Your task to perform on an android device: Do I have any events tomorrow? Image 0: 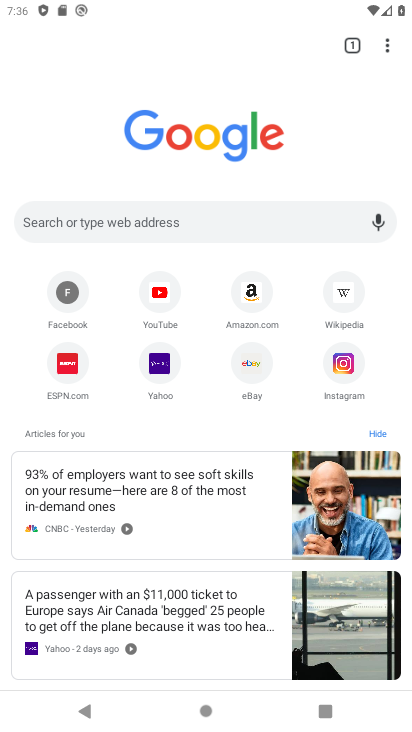
Step 0: drag from (32, 710) to (304, 83)
Your task to perform on an android device: Do I have any events tomorrow? Image 1: 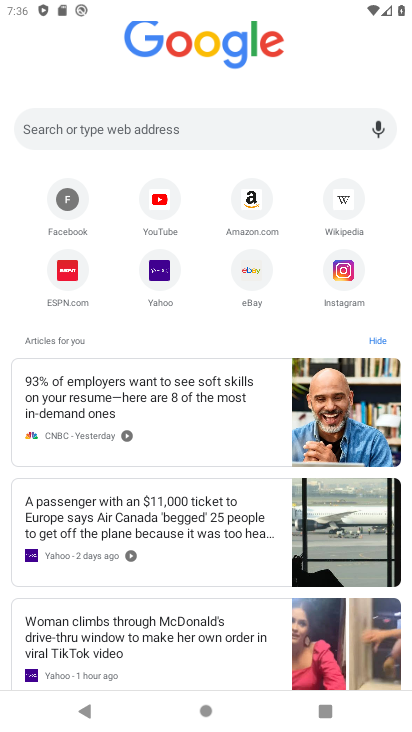
Step 1: press home button
Your task to perform on an android device: Do I have any events tomorrow? Image 2: 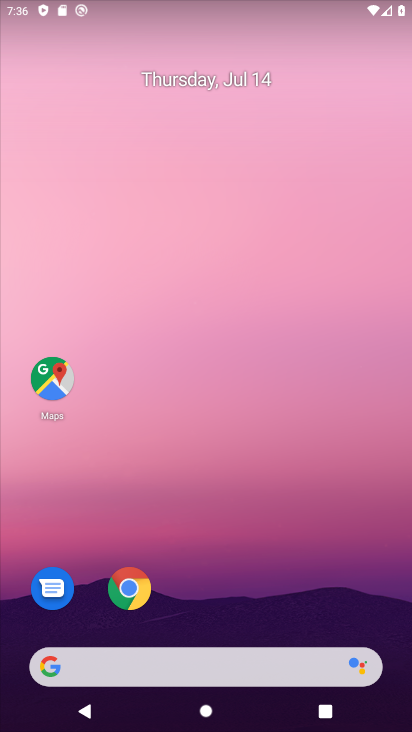
Step 2: drag from (28, 706) to (282, 78)
Your task to perform on an android device: Do I have any events tomorrow? Image 3: 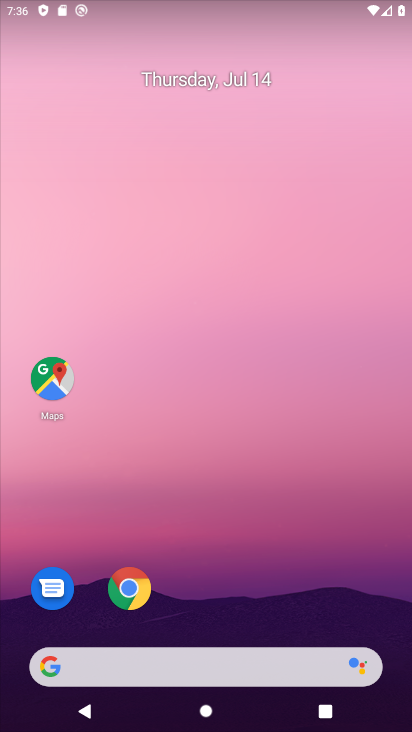
Step 3: drag from (34, 654) to (220, 68)
Your task to perform on an android device: Do I have any events tomorrow? Image 4: 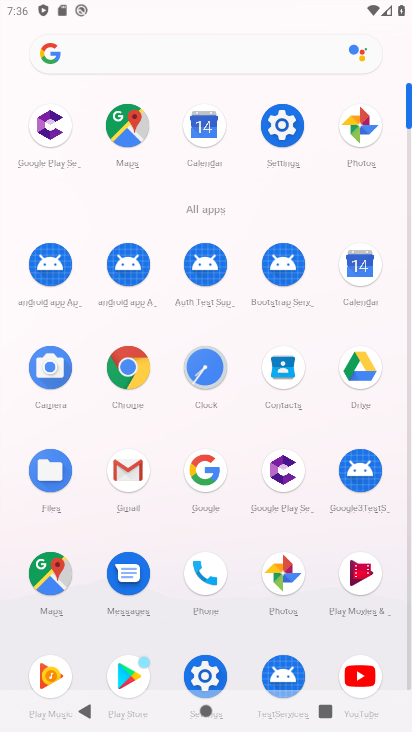
Step 4: click (357, 267)
Your task to perform on an android device: Do I have any events tomorrow? Image 5: 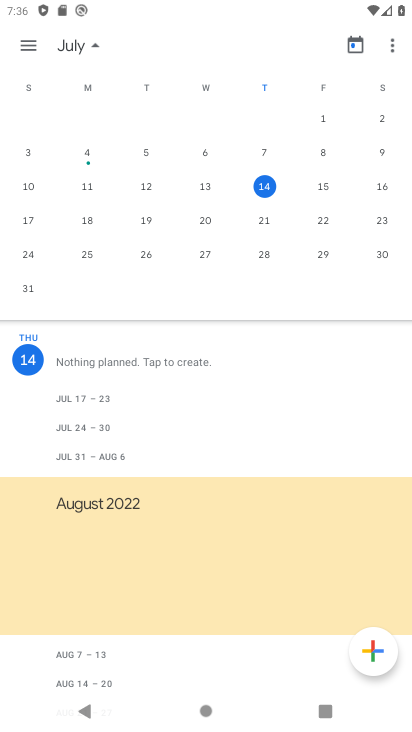
Step 5: task complete